Your task to perform on an android device: Go to location settings Image 0: 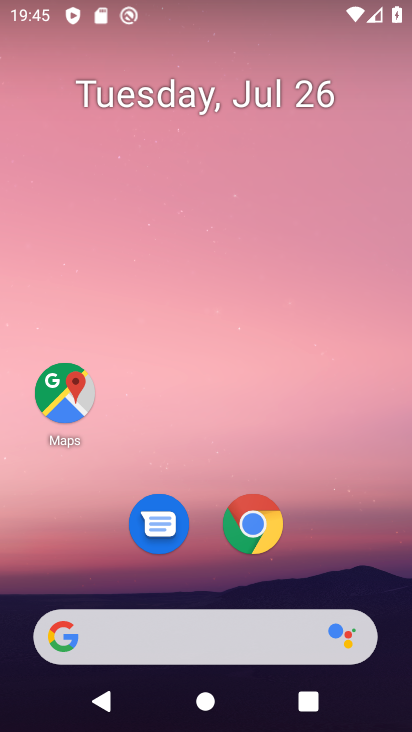
Step 0: drag from (176, 640) to (325, 95)
Your task to perform on an android device: Go to location settings Image 1: 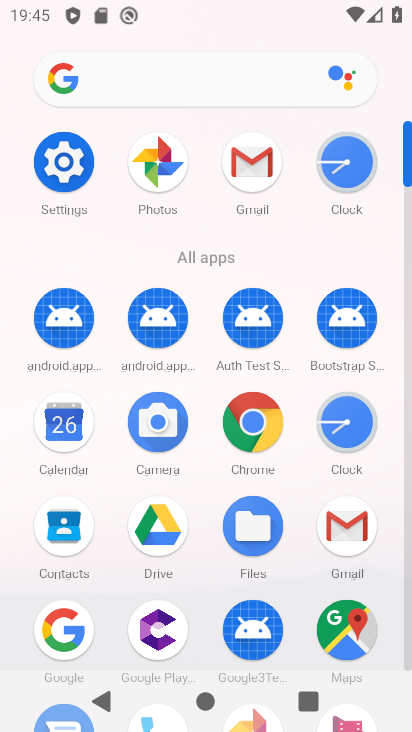
Step 1: click (70, 164)
Your task to perform on an android device: Go to location settings Image 2: 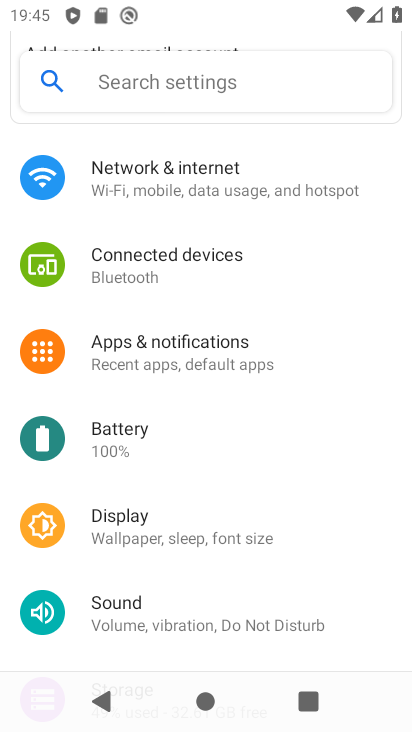
Step 2: drag from (315, 605) to (348, 135)
Your task to perform on an android device: Go to location settings Image 3: 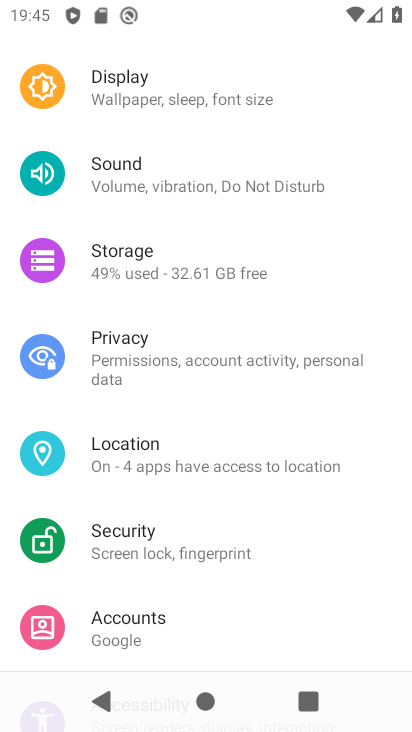
Step 3: click (160, 461)
Your task to perform on an android device: Go to location settings Image 4: 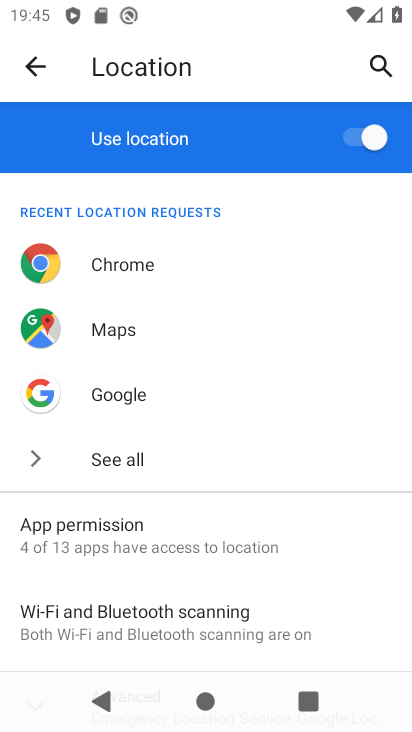
Step 4: task complete